Your task to perform on an android device: Go to display settings Image 0: 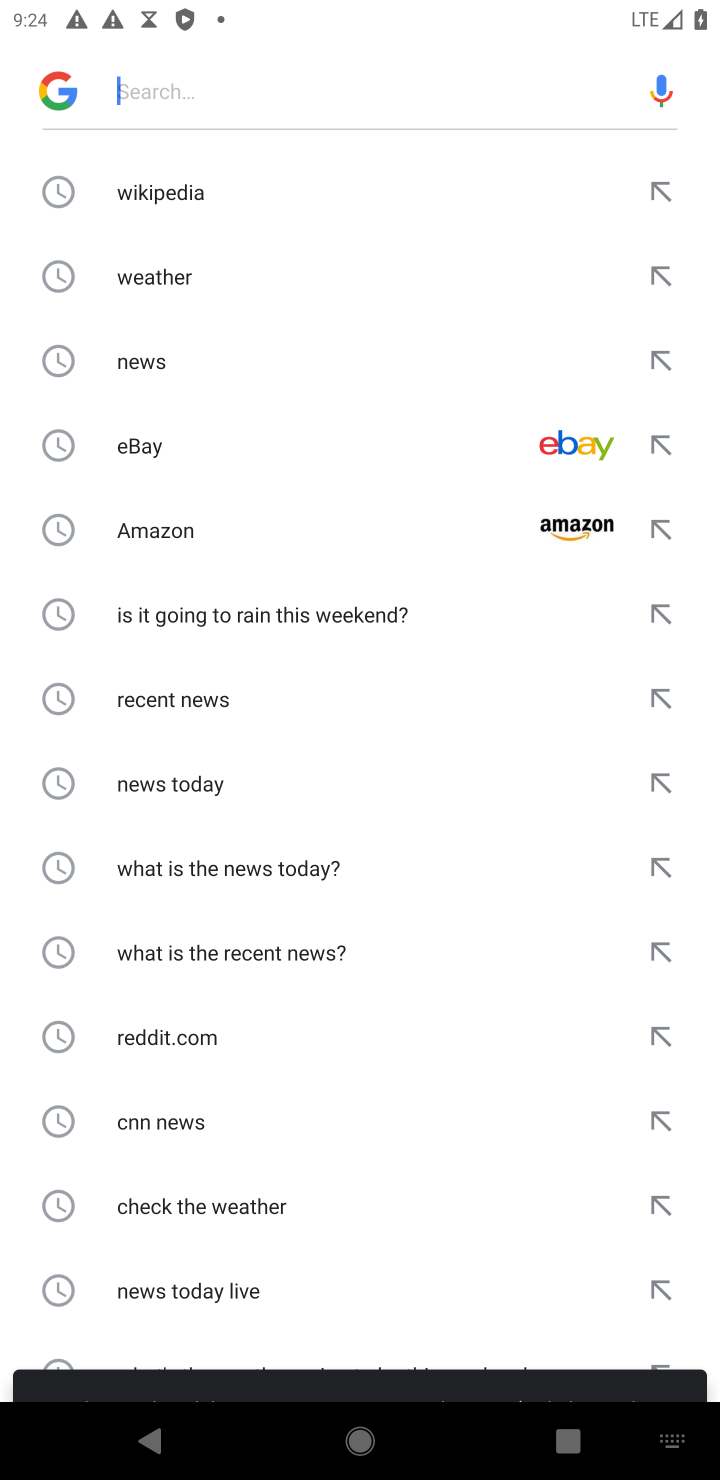
Step 0: press back button
Your task to perform on an android device: Go to display settings Image 1: 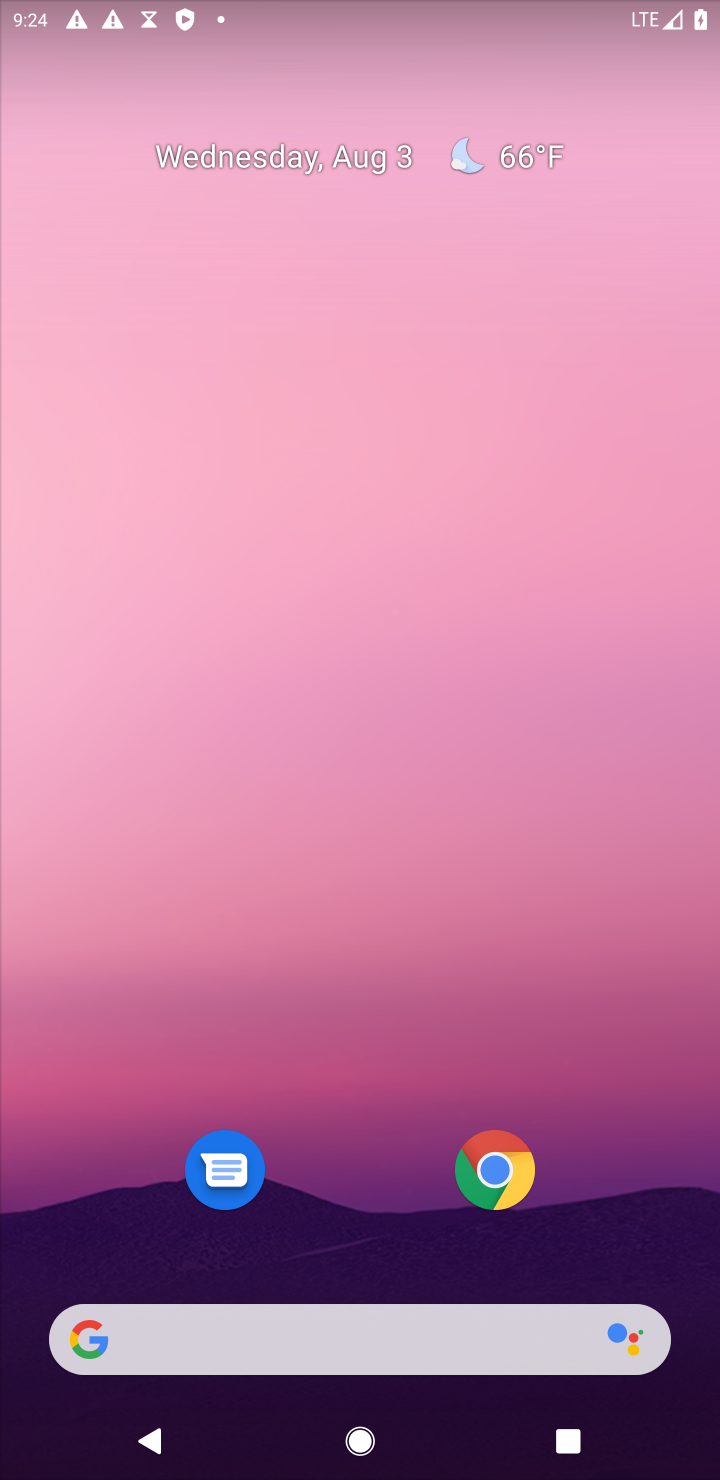
Step 1: drag from (638, 1247) to (455, 166)
Your task to perform on an android device: Go to display settings Image 2: 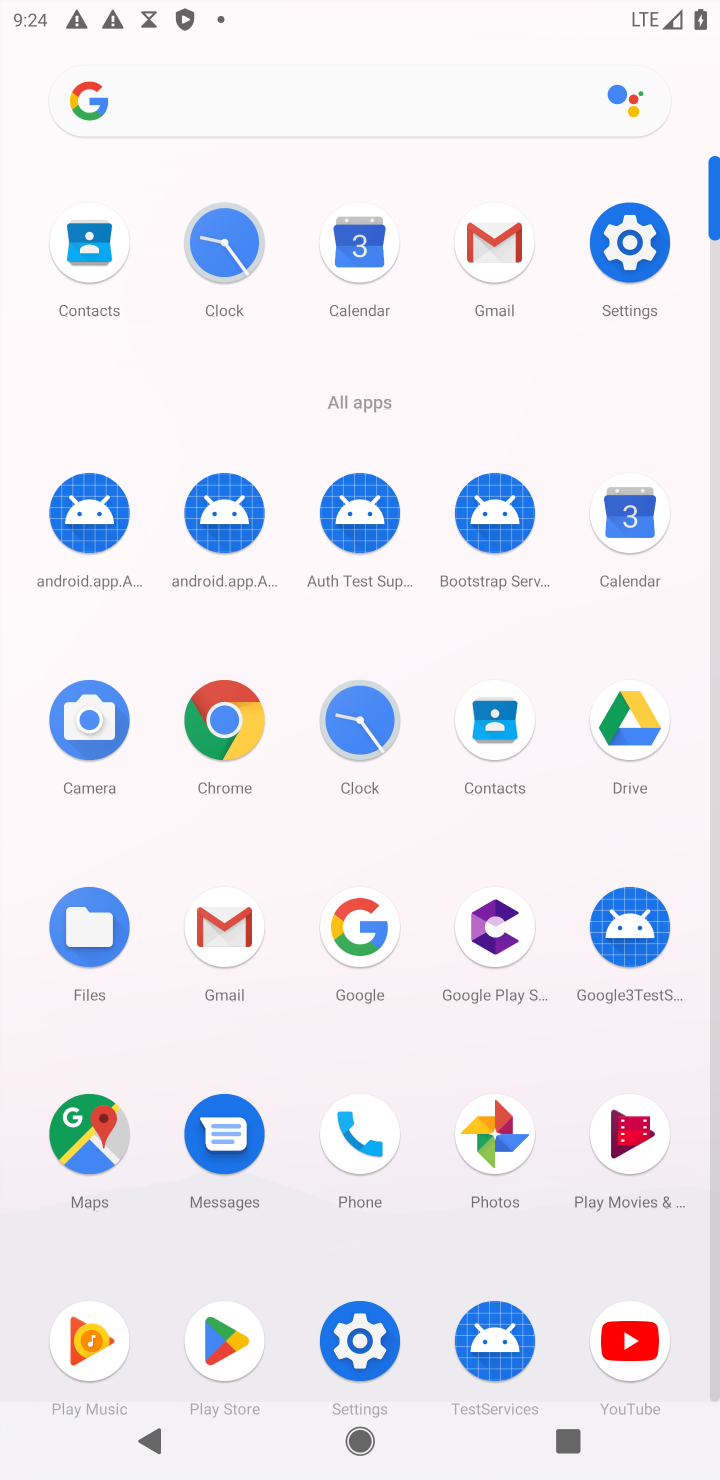
Step 2: click (369, 1361)
Your task to perform on an android device: Go to display settings Image 3: 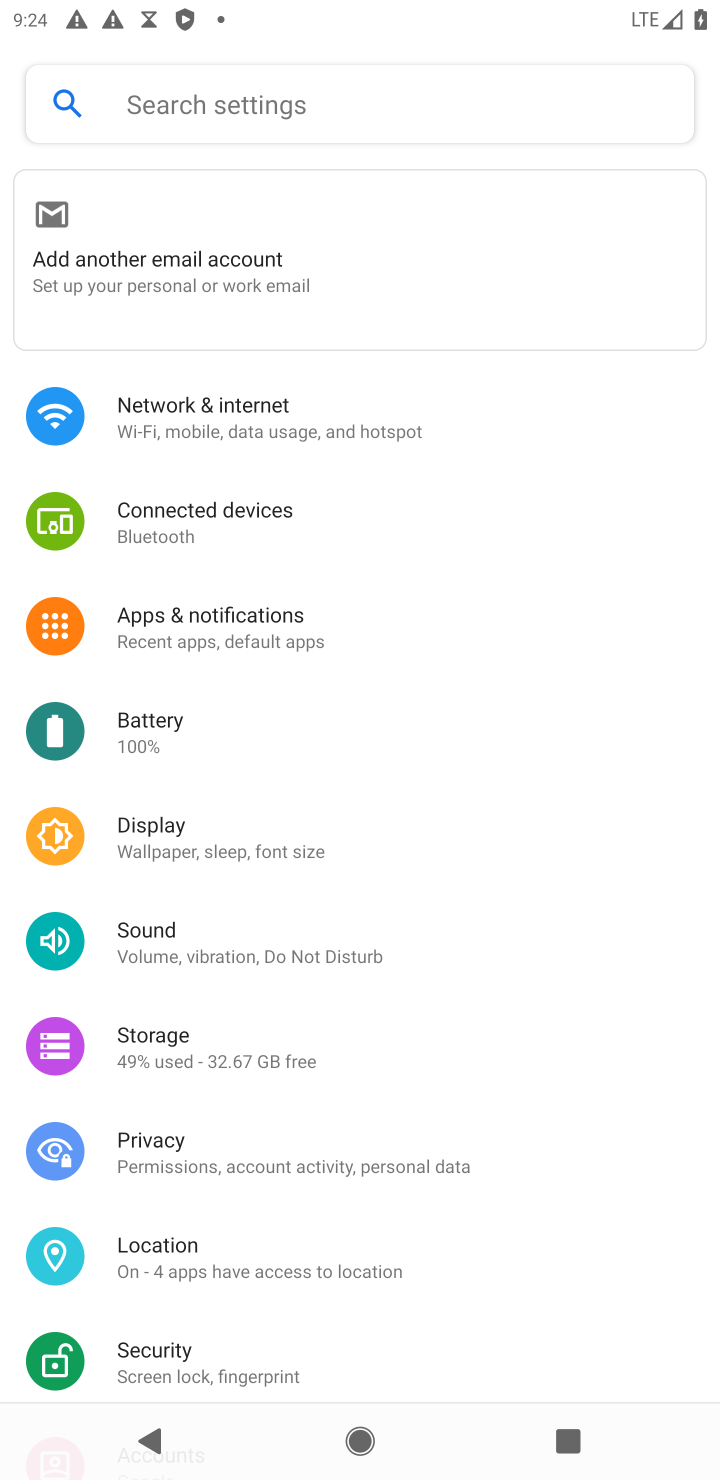
Step 3: click (270, 860)
Your task to perform on an android device: Go to display settings Image 4: 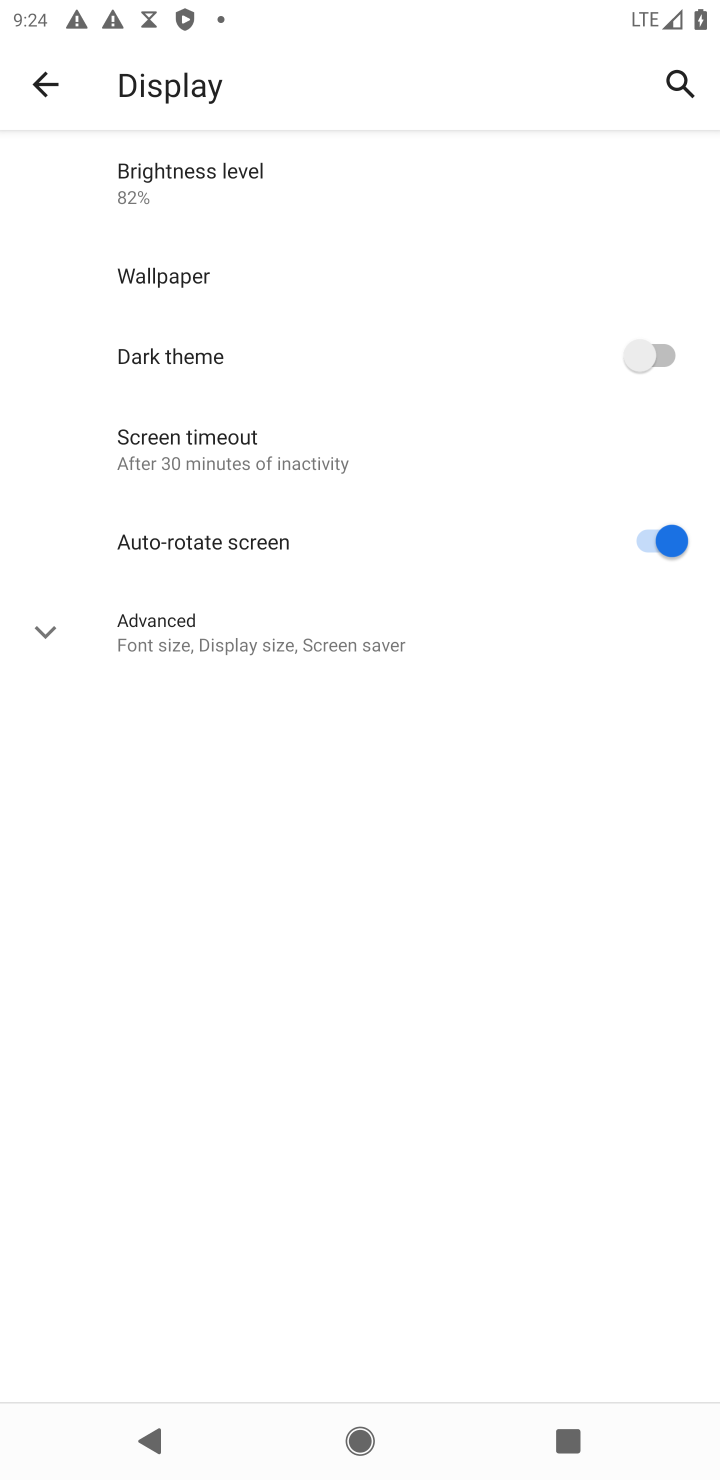
Step 4: task complete